Your task to perform on an android device: turn off priority inbox in the gmail app Image 0: 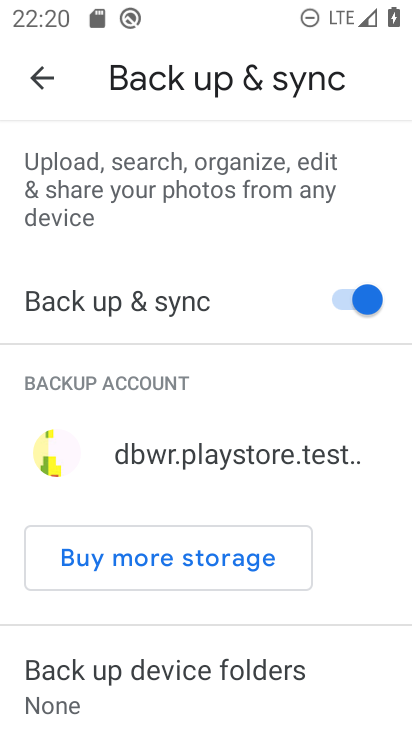
Step 0: press home button
Your task to perform on an android device: turn off priority inbox in the gmail app Image 1: 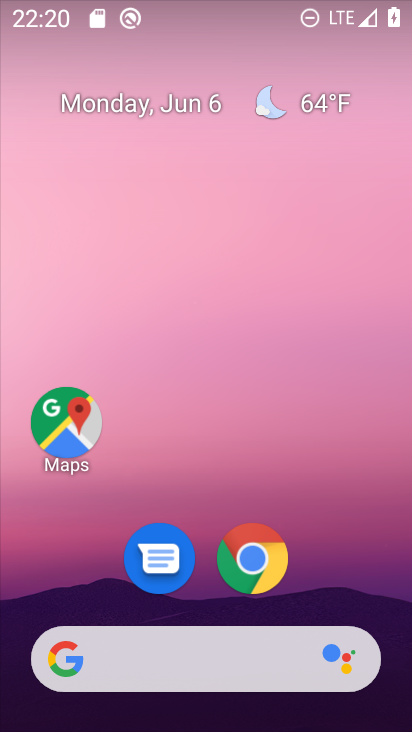
Step 1: drag from (219, 726) to (202, 125)
Your task to perform on an android device: turn off priority inbox in the gmail app Image 2: 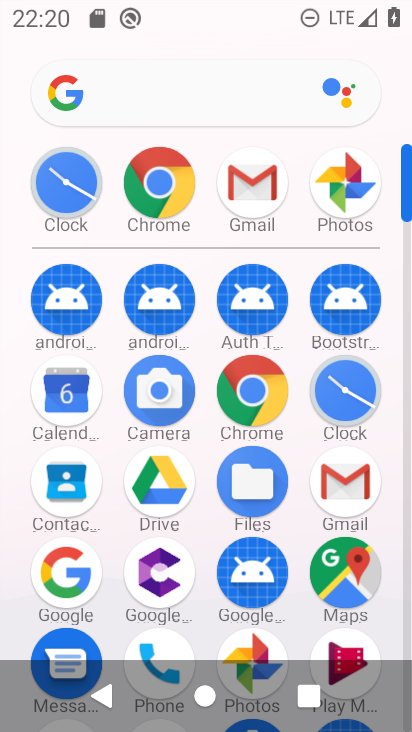
Step 2: click (345, 483)
Your task to perform on an android device: turn off priority inbox in the gmail app Image 3: 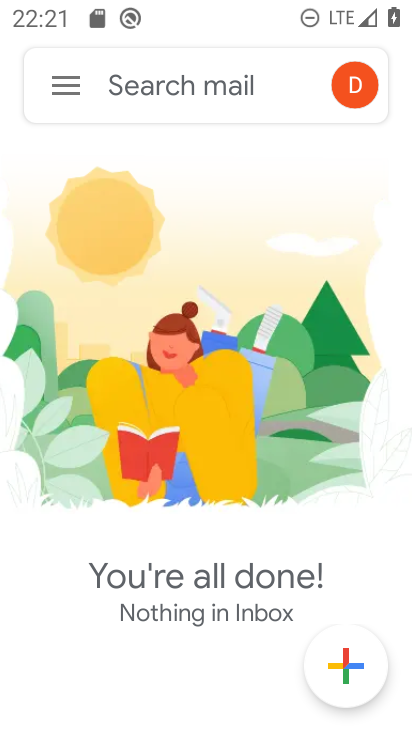
Step 3: click (66, 84)
Your task to perform on an android device: turn off priority inbox in the gmail app Image 4: 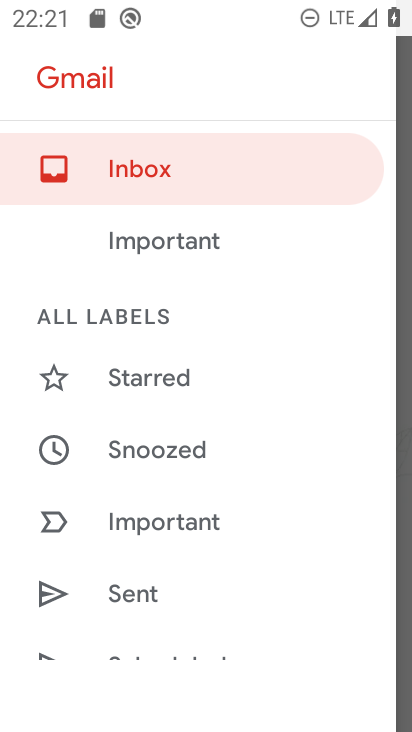
Step 4: drag from (129, 624) to (124, 251)
Your task to perform on an android device: turn off priority inbox in the gmail app Image 5: 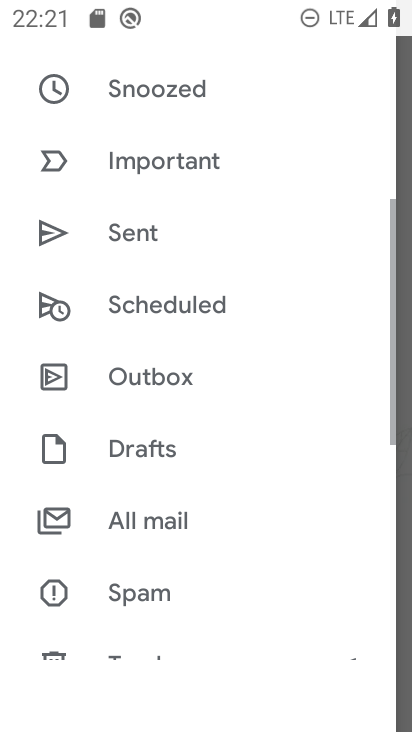
Step 5: drag from (166, 543) to (166, 234)
Your task to perform on an android device: turn off priority inbox in the gmail app Image 6: 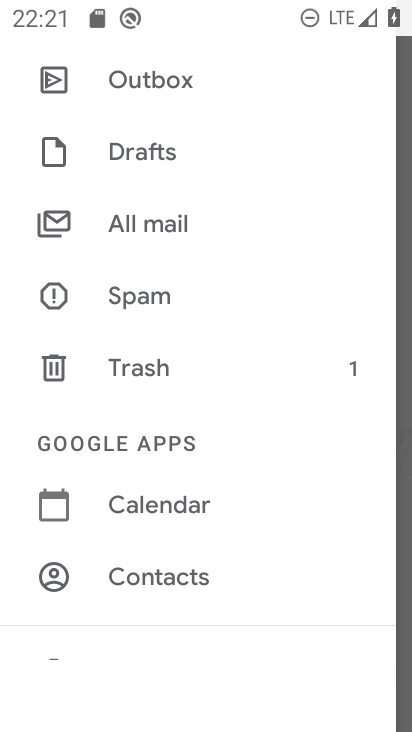
Step 6: drag from (173, 603) to (169, 216)
Your task to perform on an android device: turn off priority inbox in the gmail app Image 7: 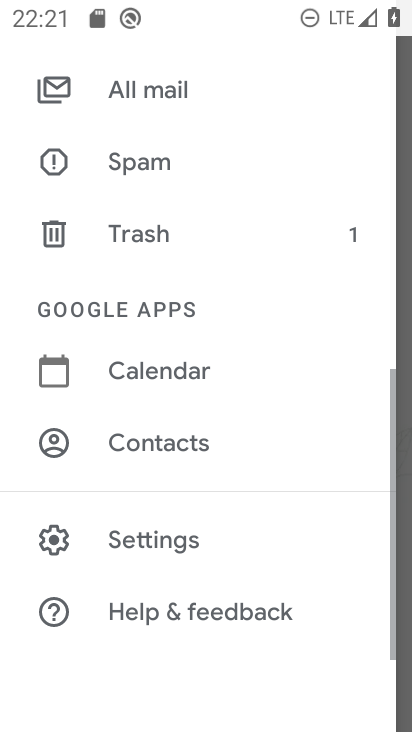
Step 7: click (144, 545)
Your task to perform on an android device: turn off priority inbox in the gmail app Image 8: 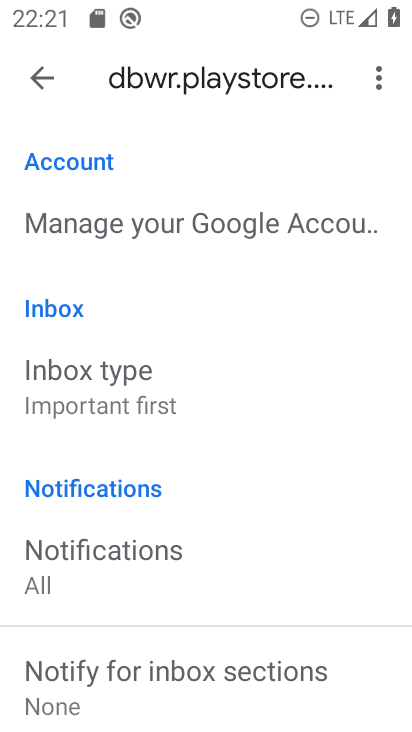
Step 8: task complete